Your task to perform on an android device: toggle airplane mode Image 0: 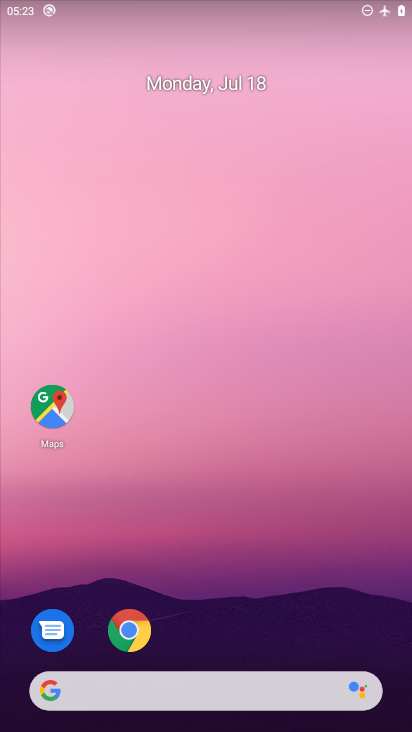
Step 0: press home button
Your task to perform on an android device: toggle airplane mode Image 1: 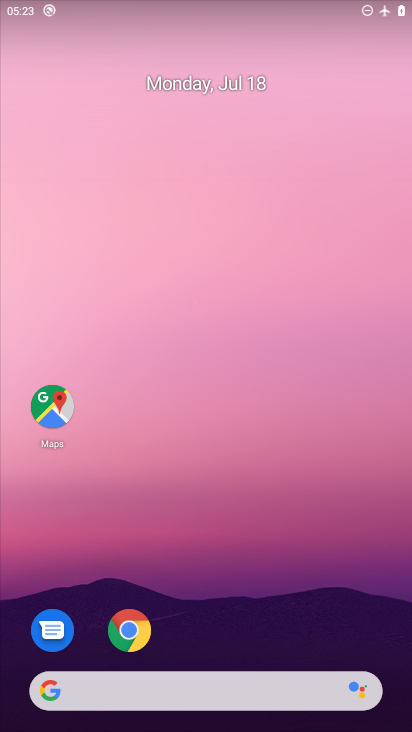
Step 1: drag from (236, 3) to (223, 473)
Your task to perform on an android device: toggle airplane mode Image 2: 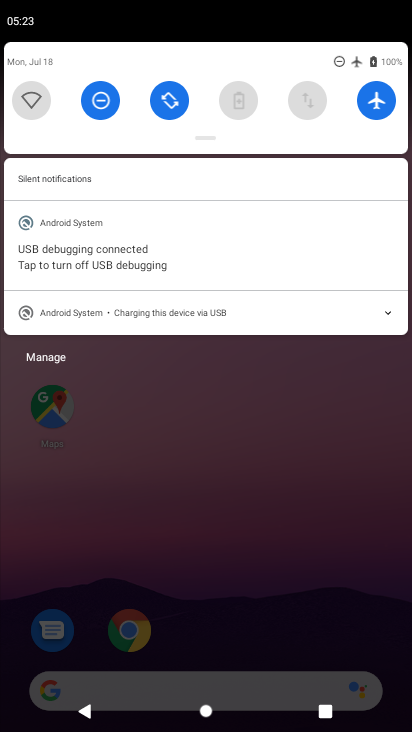
Step 2: click (372, 97)
Your task to perform on an android device: toggle airplane mode Image 3: 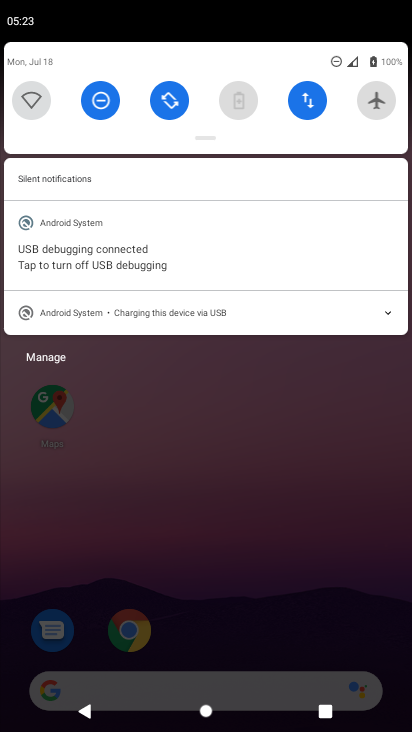
Step 3: task complete